Your task to perform on an android device: remove spam from my inbox in the gmail app Image 0: 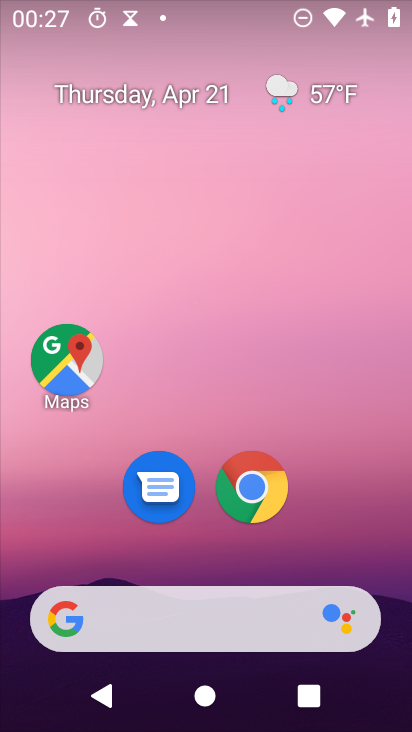
Step 0: drag from (358, 454) to (267, 54)
Your task to perform on an android device: remove spam from my inbox in the gmail app Image 1: 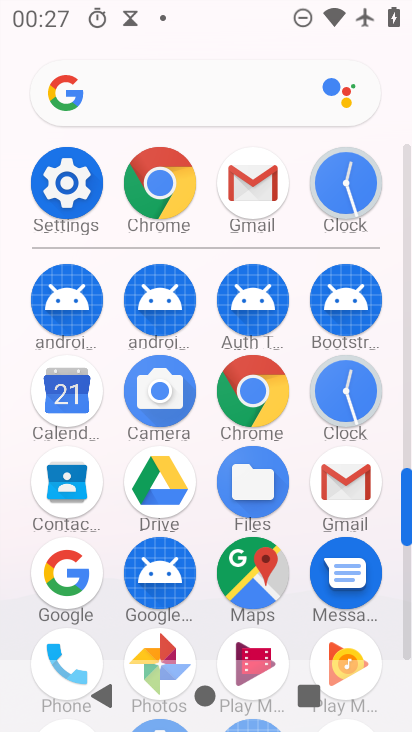
Step 1: drag from (17, 499) to (14, 298)
Your task to perform on an android device: remove spam from my inbox in the gmail app Image 2: 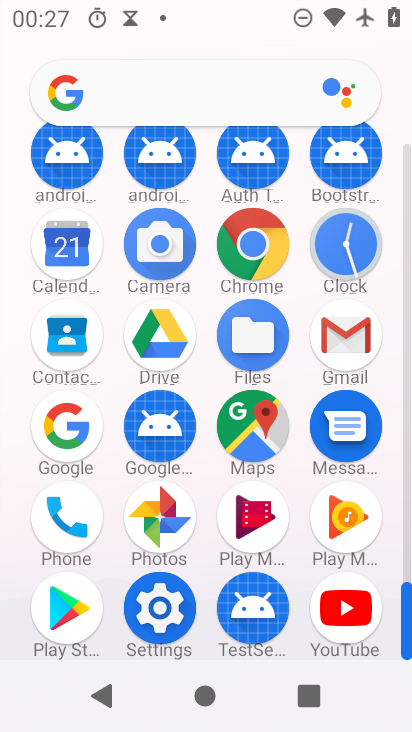
Step 2: click (349, 327)
Your task to perform on an android device: remove spam from my inbox in the gmail app Image 3: 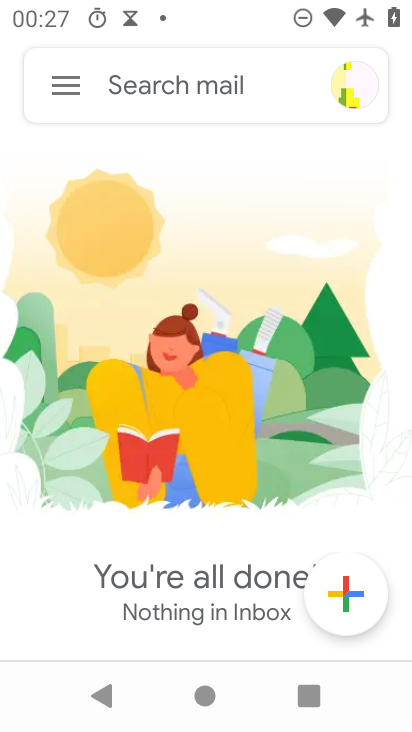
Step 3: click (68, 81)
Your task to perform on an android device: remove spam from my inbox in the gmail app Image 4: 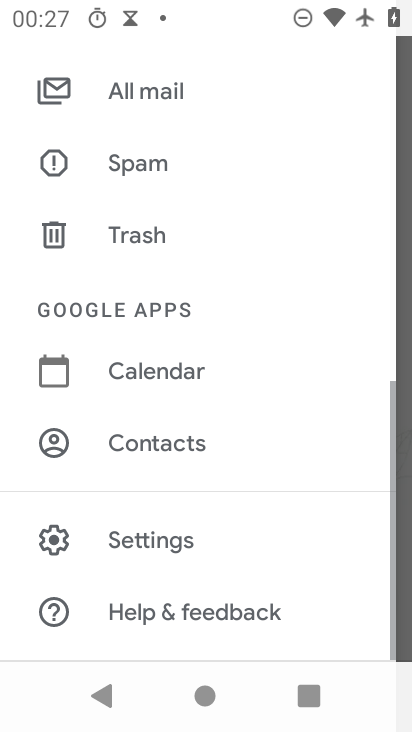
Step 4: drag from (224, 498) to (216, 151)
Your task to perform on an android device: remove spam from my inbox in the gmail app Image 5: 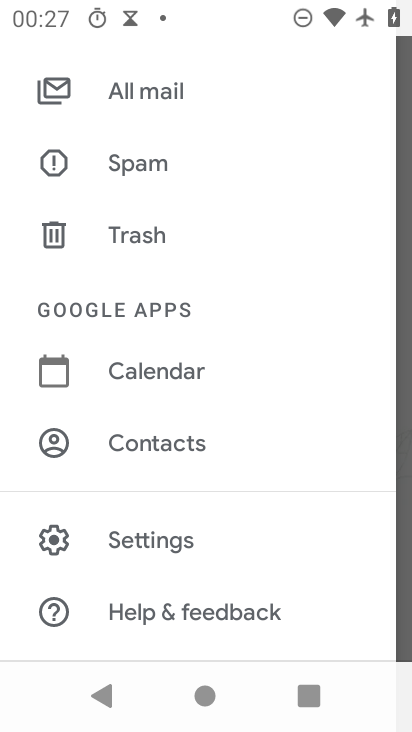
Step 5: drag from (220, 173) to (233, 463)
Your task to perform on an android device: remove spam from my inbox in the gmail app Image 6: 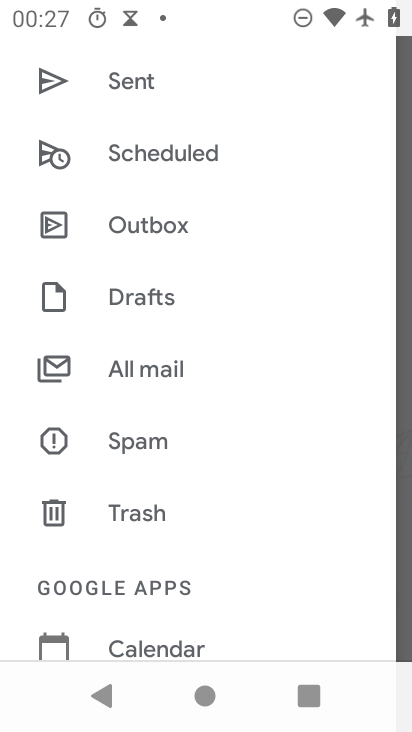
Step 6: click (169, 430)
Your task to perform on an android device: remove spam from my inbox in the gmail app Image 7: 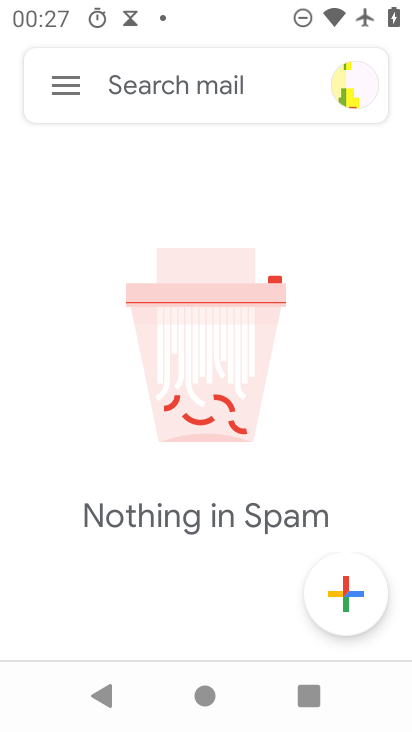
Step 7: task complete